Your task to perform on an android device: change keyboard looks Image 0: 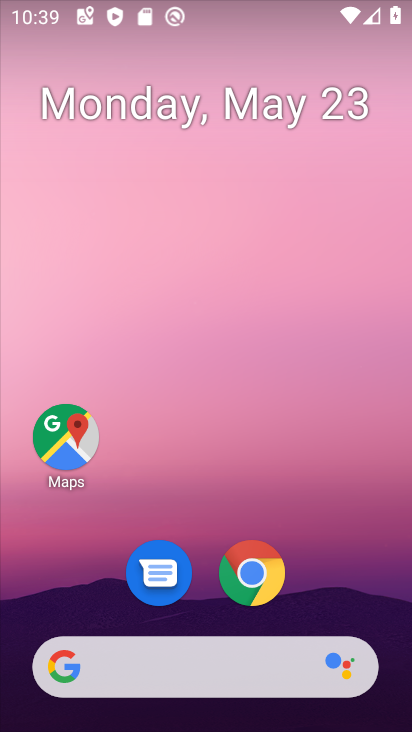
Step 0: drag from (222, 690) to (280, 252)
Your task to perform on an android device: change keyboard looks Image 1: 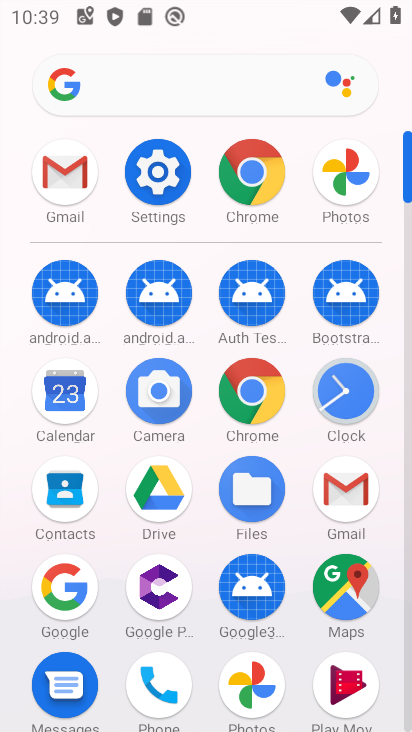
Step 1: click (168, 180)
Your task to perform on an android device: change keyboard looks Image 2: 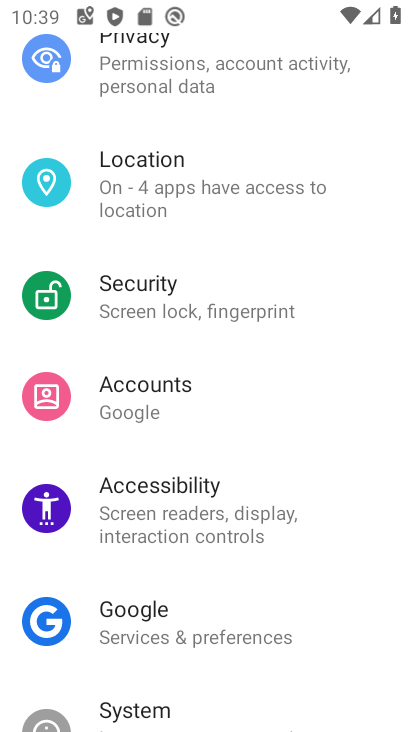
Step 2: drag from (202, 525) to (273, 289)
Your task to perform on an android device: change keyboard looks Image 3: 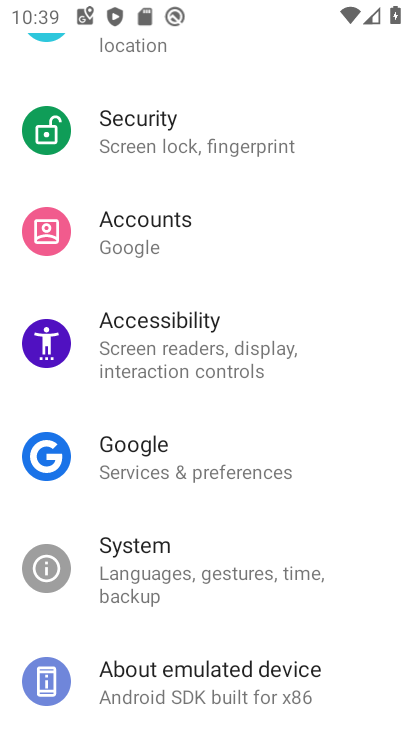
Step 3: drag from (276, 393) to (309, 290)
Your task to perform on an android device: change keyboard looks Image 4: 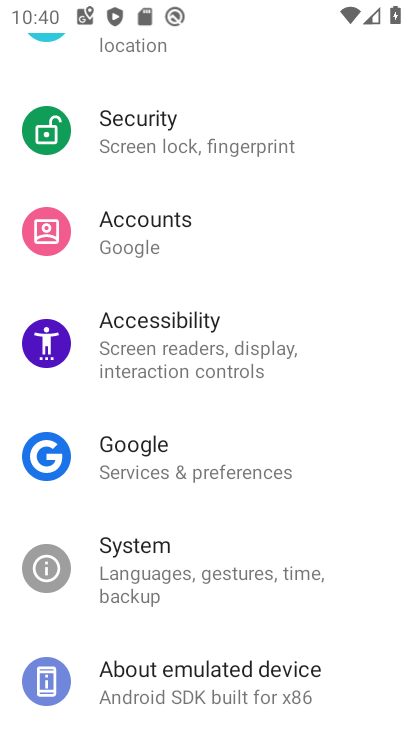
Step 4: click (223, 586)
Your task to perform on an android device: change keyboard looks Image 5: 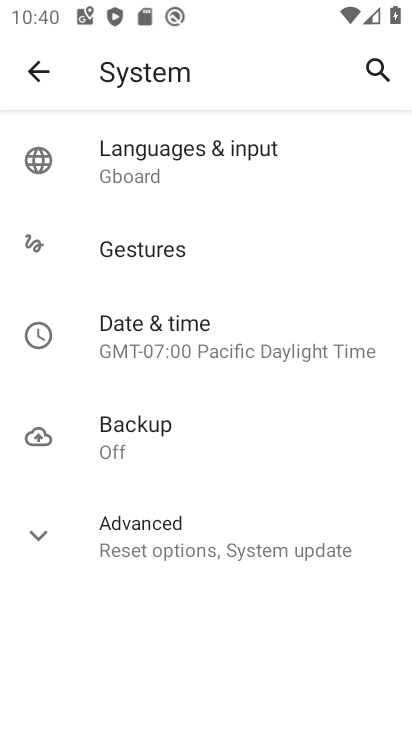
Step 5: click (212, 168)
Your task to perform on an android device: change keyboard looks Image 6: 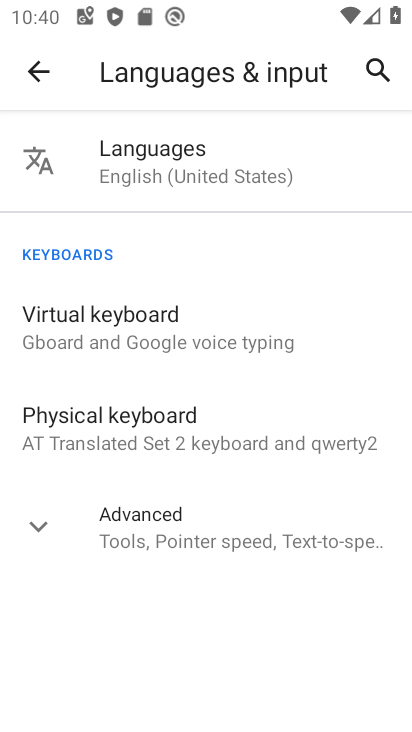
Step 6: click (192, 340)
Your task to perform on an android device: change keyboard looks Image 7: 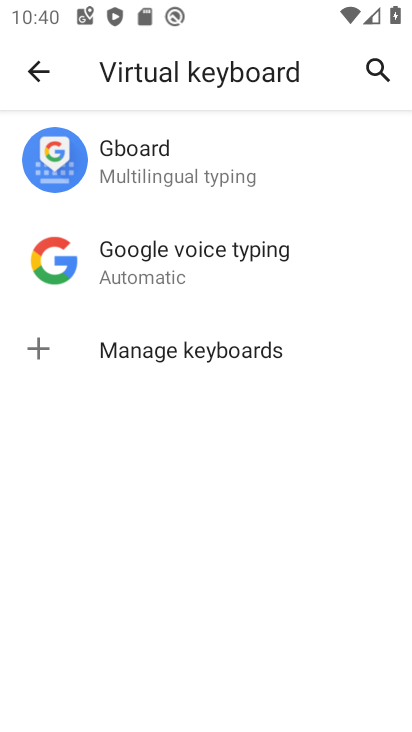
Step 7: click (203, 164)
Your task to perform on an android device: change keyboard looks Image 8: 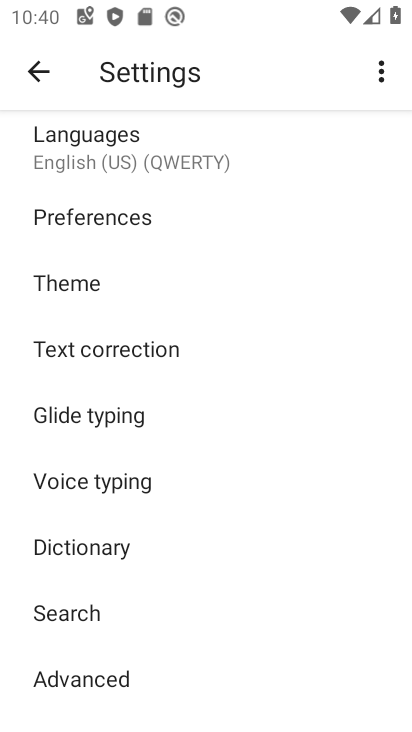
Step 8: click (111, 280)
Your task to perform on an android device: change keyboard looks Image 9: 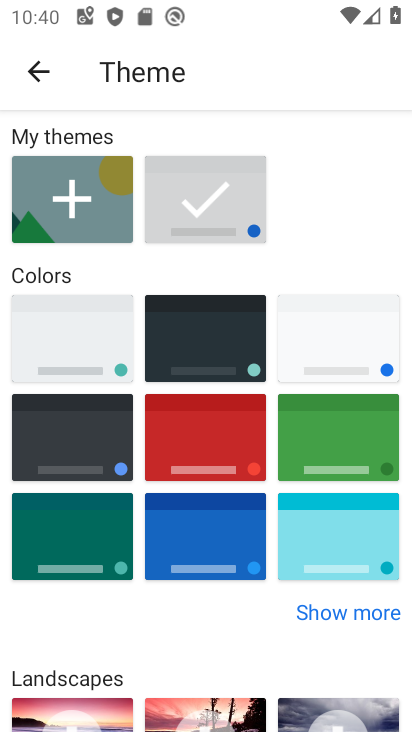
Step 9: click (228, 445)
Your task to perform on an android device: change keyboard looks Image 10: 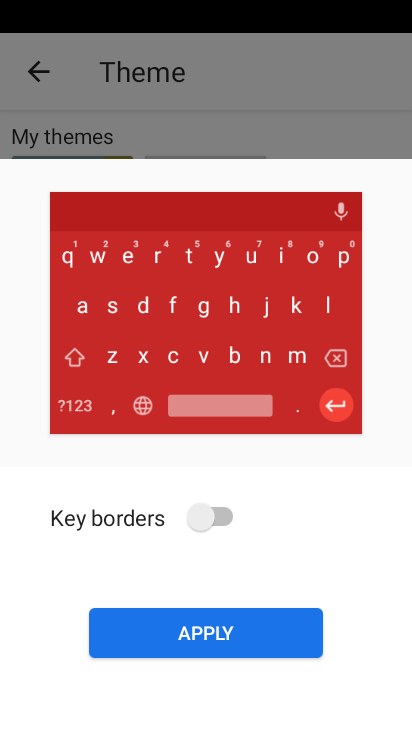
Step 10: click (263, 629)
Your task to perform on an android device: change keyboard looks Image 11: 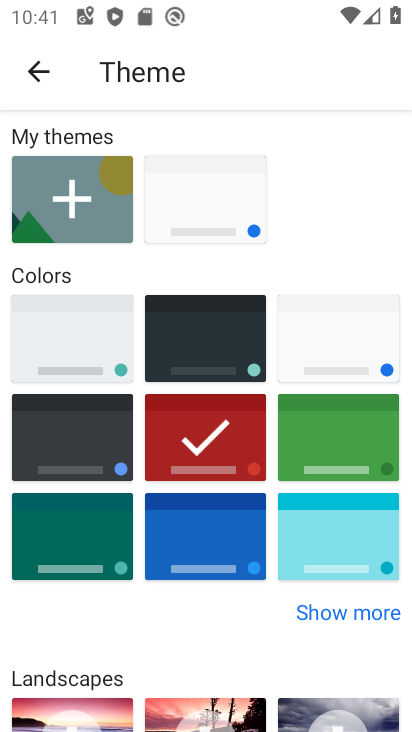
Step 11: task complete